Your task to perform on an android device: See recent photos Image 0: 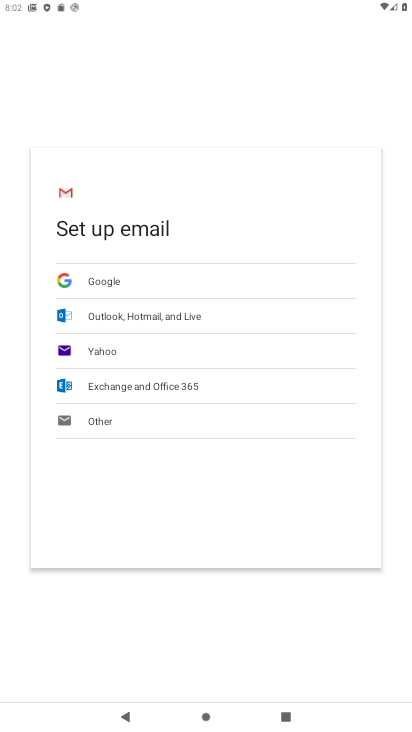
Step 0: press home button
Your task to perform on an android device: See recent photos Image 1: 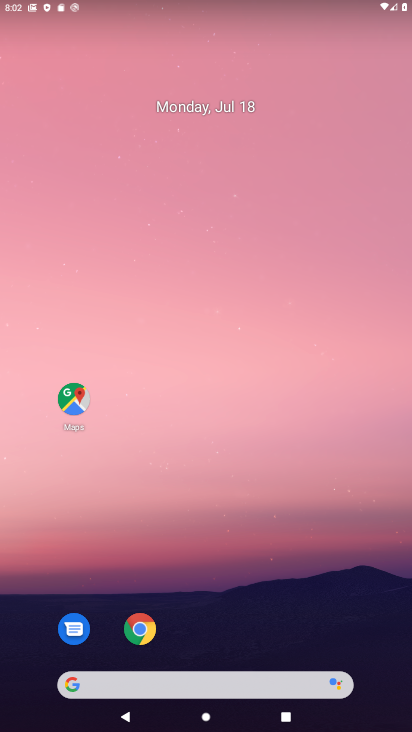
Step 1: drag from (284, 589) to (216, 0)
Your task to perform on an android device: See recent photos Image 2: 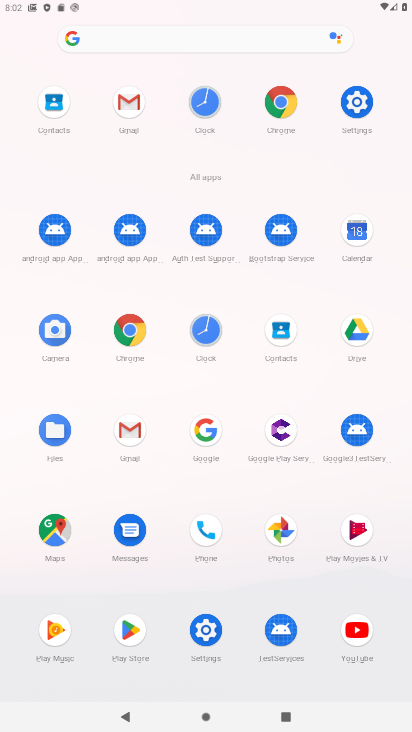
Step 2: click (265, 532)
Your task to perform on an android device: See recent photos Image 3: 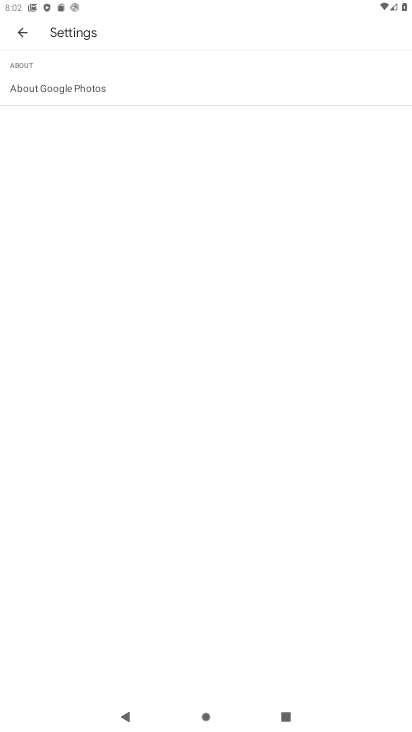
Step 3: click (19, 46)
Your task to perform on an android device: See recent photos Image 4: 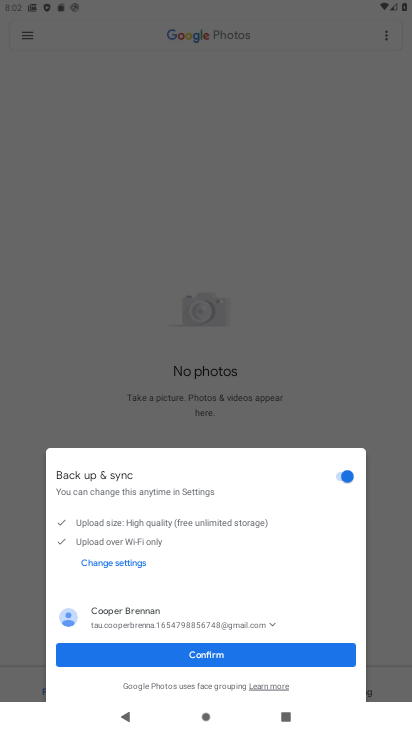
Step 4: click (110, 661)
Your task to perform on an android device: See recent photos Image 5: 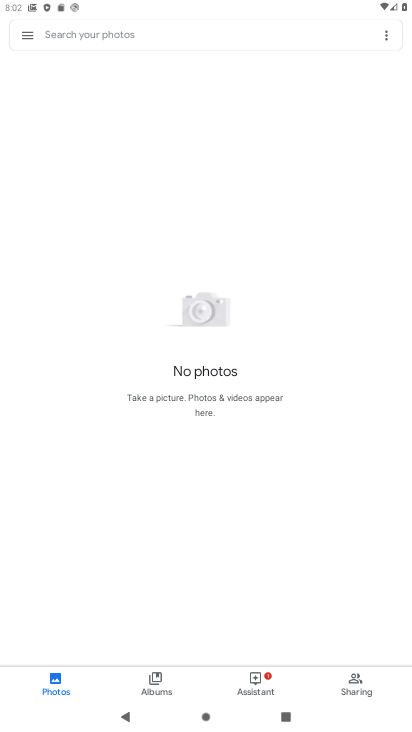
Step 5: task complete